Your task to perform on an android device: Open Android settings Image 0: 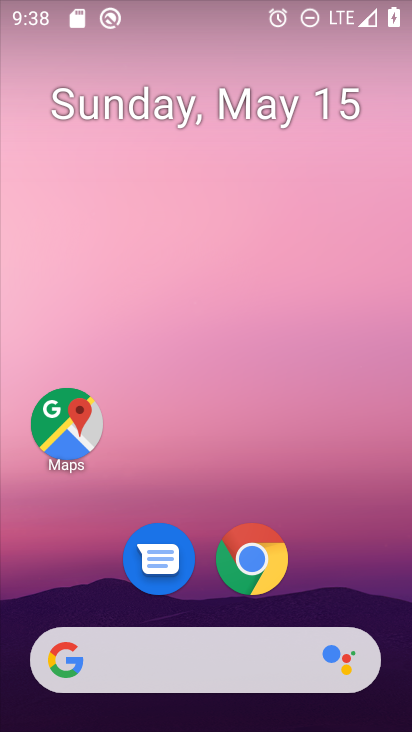
Step 0: drag from (314, 558) to (303, 187)
Your task to perform on an android device: Open Android settings Image 1: 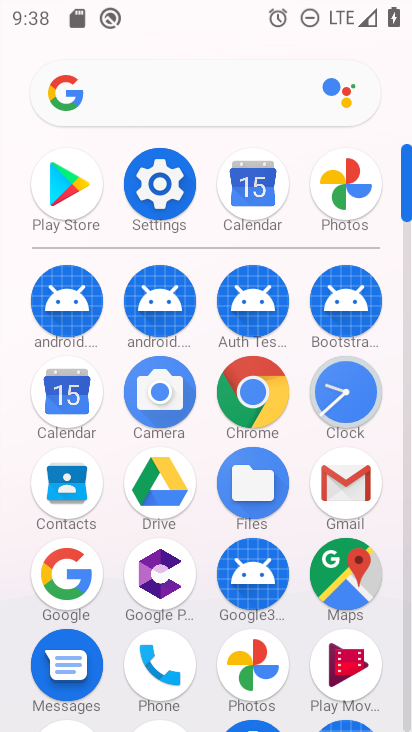
Step 1: click (141, 201)
Your task to perform on an android device: Open Android settings Image 2: 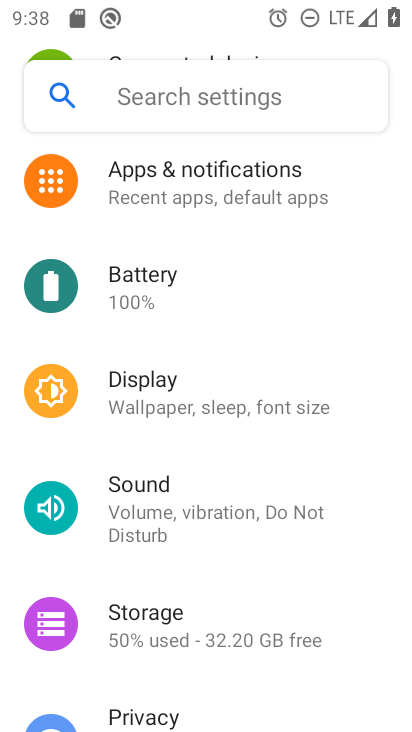
Step 2: drag from (189, 513) to (192, 134)
Your task to perform on an android device: Open Android settings Image 3: 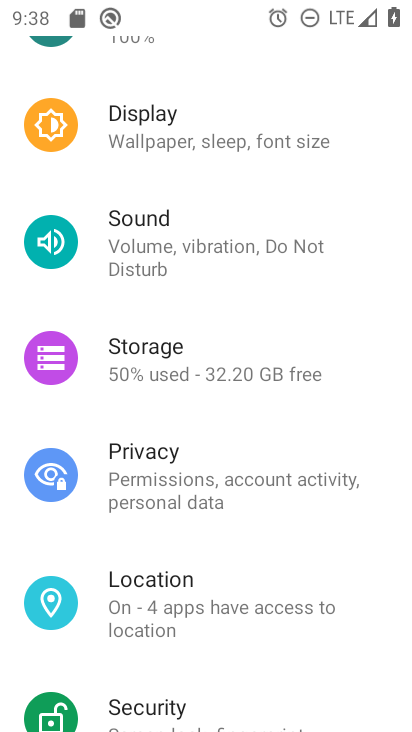
Step 3: drag from (232, 615) to (261, 197)
Your task to perform on an android device: Open Android settings Image 4: 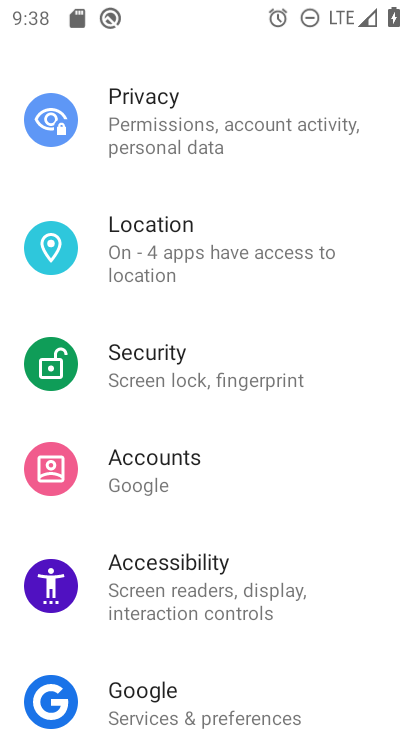
Step 4: drag from (210, 663) to (251, 251)
Your task to perform on an android device: Open Android settings Image 5: 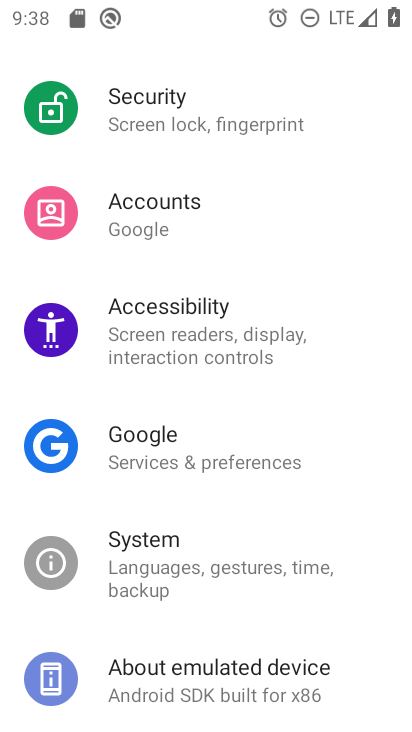
Step 5: click (206, 656)
Your task to perform on an android device: Open Android settings Image 6: 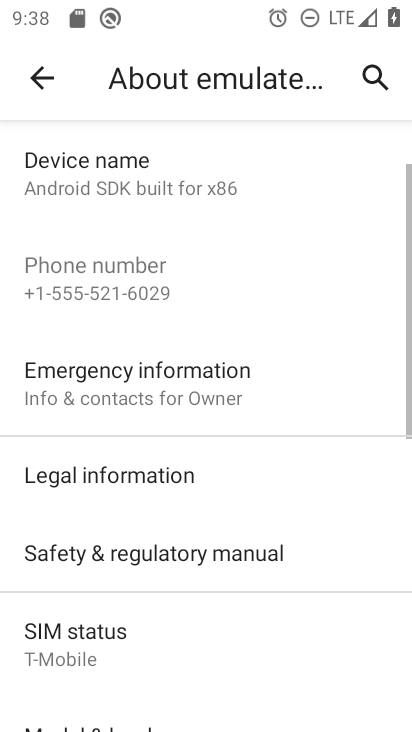
Step 6: task complete